Your task to perform on an android device: delete location history Image 0: 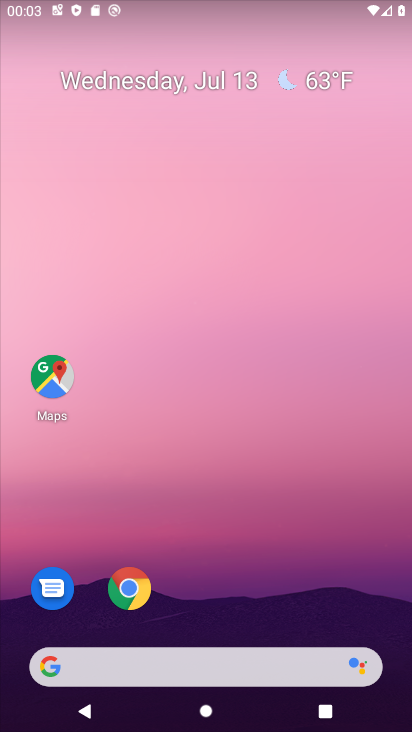
Step 0: drag from (44, 708) to (400, 25)
Your task to perform on an android device: delete location history Image 1: 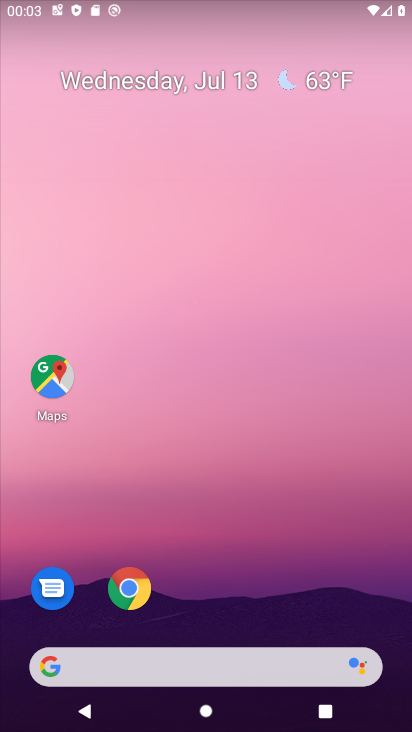
Step 1: drag from (32, 694) to (267, 44)
Your task to perform on an android device: delete location history Image 2: 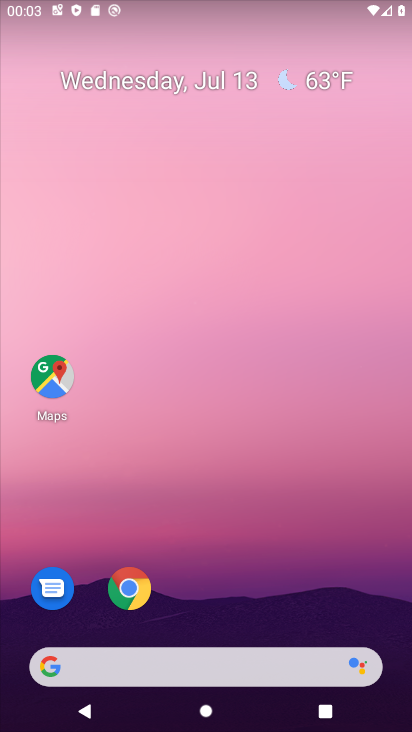
Step 2: drag from (25, 716) to (253, 92)
Your task to perform on an android device: delete location history Image 3: 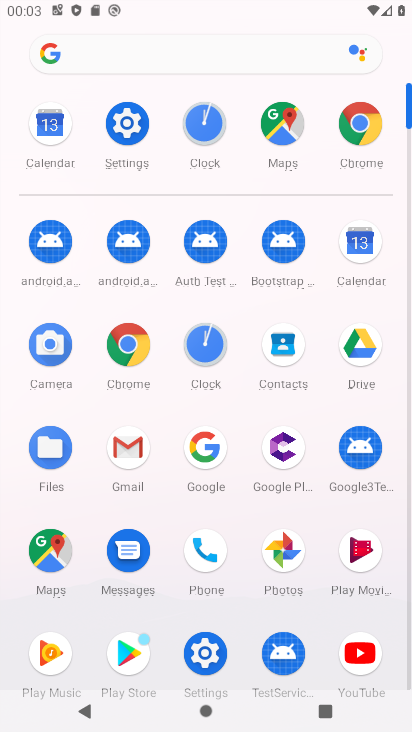
Step 3: click (207, 656)
Your task to perform on an android device: delete location history Image 4: 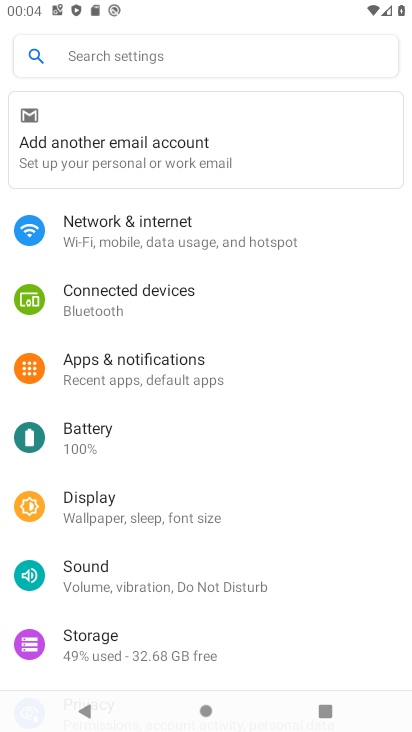
Step 4: drag from (311, 634) to (355, 236)
Your task to perform on an android device: delete location history Image 5: 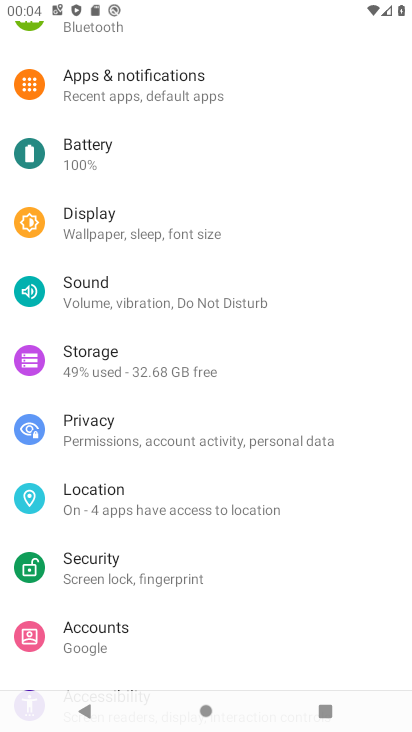
Step 5: drag from (301, 581) to (348, 166)
Your task to perform on an android device: delete location history Image 6: 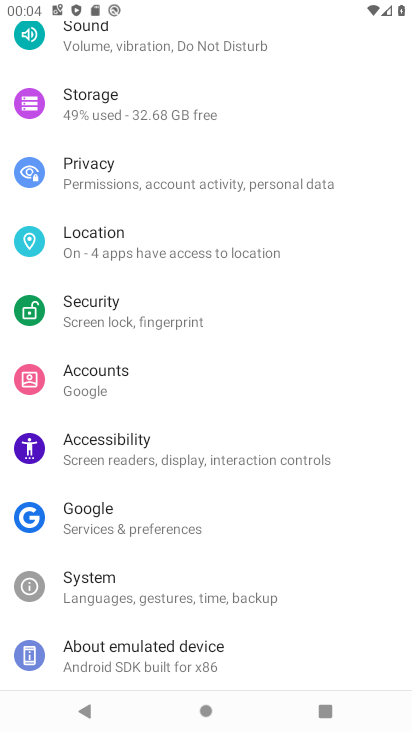
Step 6: click (214, 228)
Your task to perform on an android device: delete location history Image 7: 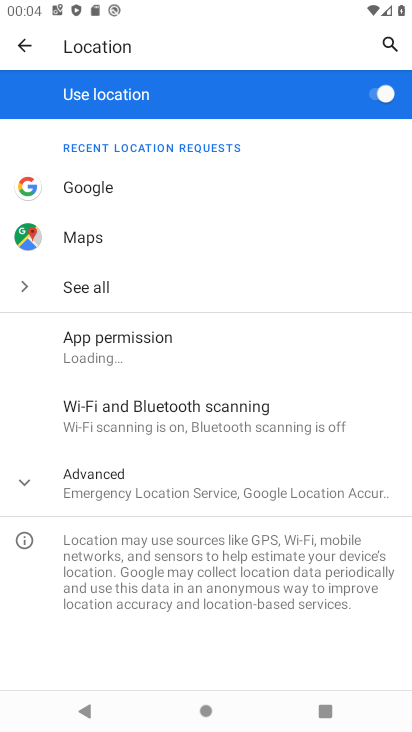
Step 7: click (91, 480)
Your task to perform on an android device: delete location history Image 8: 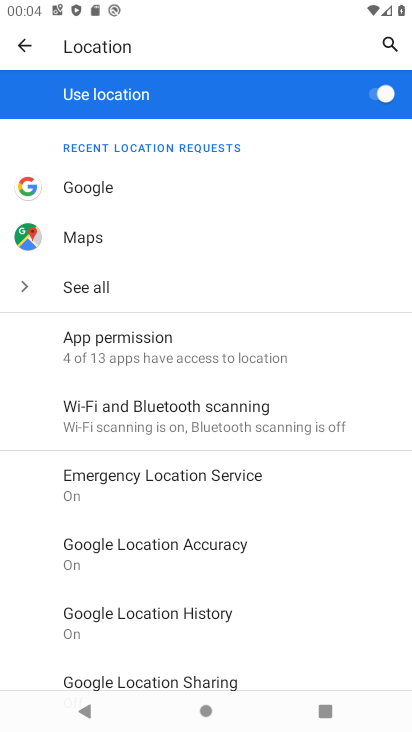
Step 8: click (160, 618)
Your task to perform on an android device: delete location history Image 9: 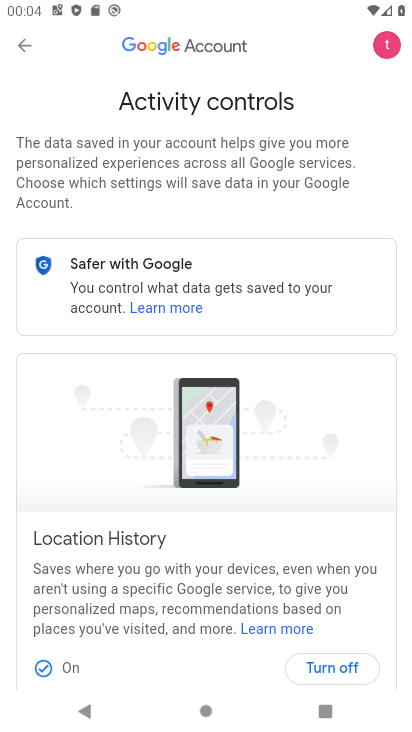
Step 9: click (336, 660)
Your task to perform on an android device: delete location history Image 10: 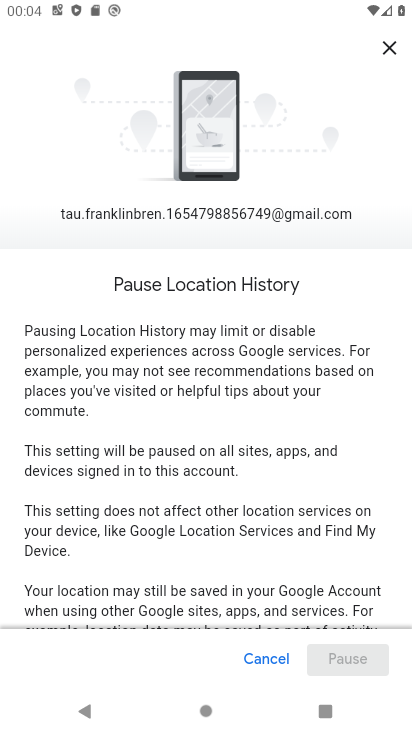
Step 10: click (325, 654)
Your task to perform on an android device: delete location history Image 11: 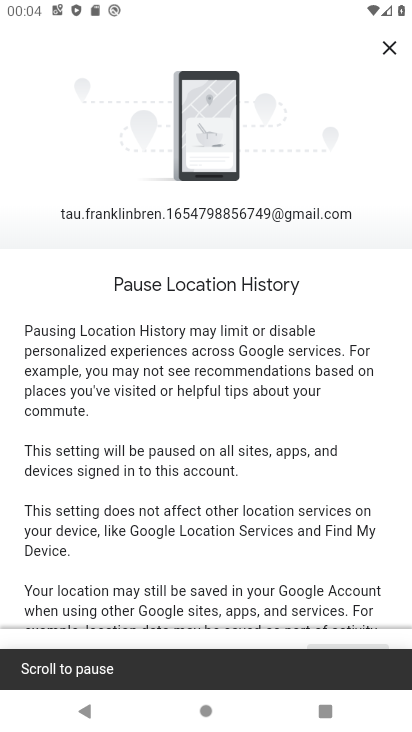
Step 11: task complete